Your task to perform on an android device: Open Google Maps and go to "Timeline" Image 0: 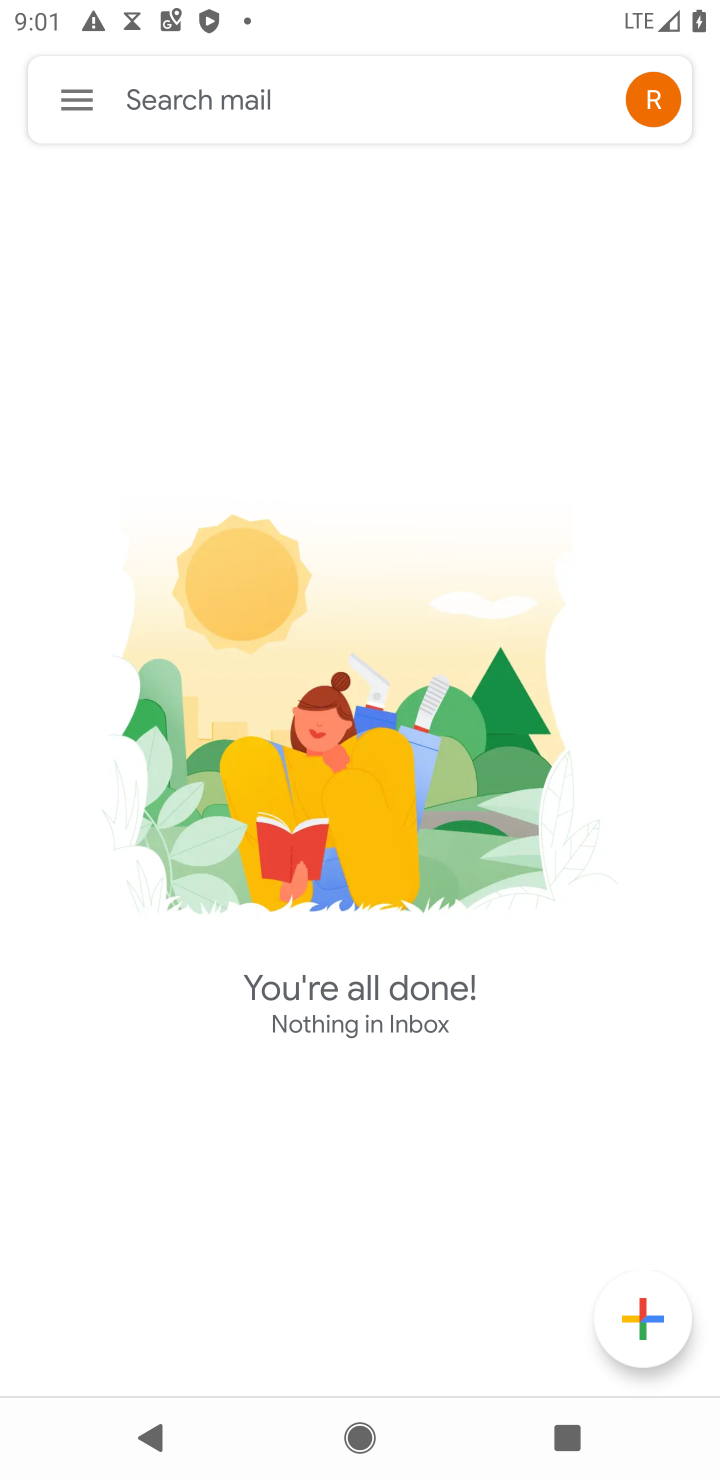
Step 0: press back button
Your task to perform on an android device: Open Google Maps and go to "Timeline" Image 1: 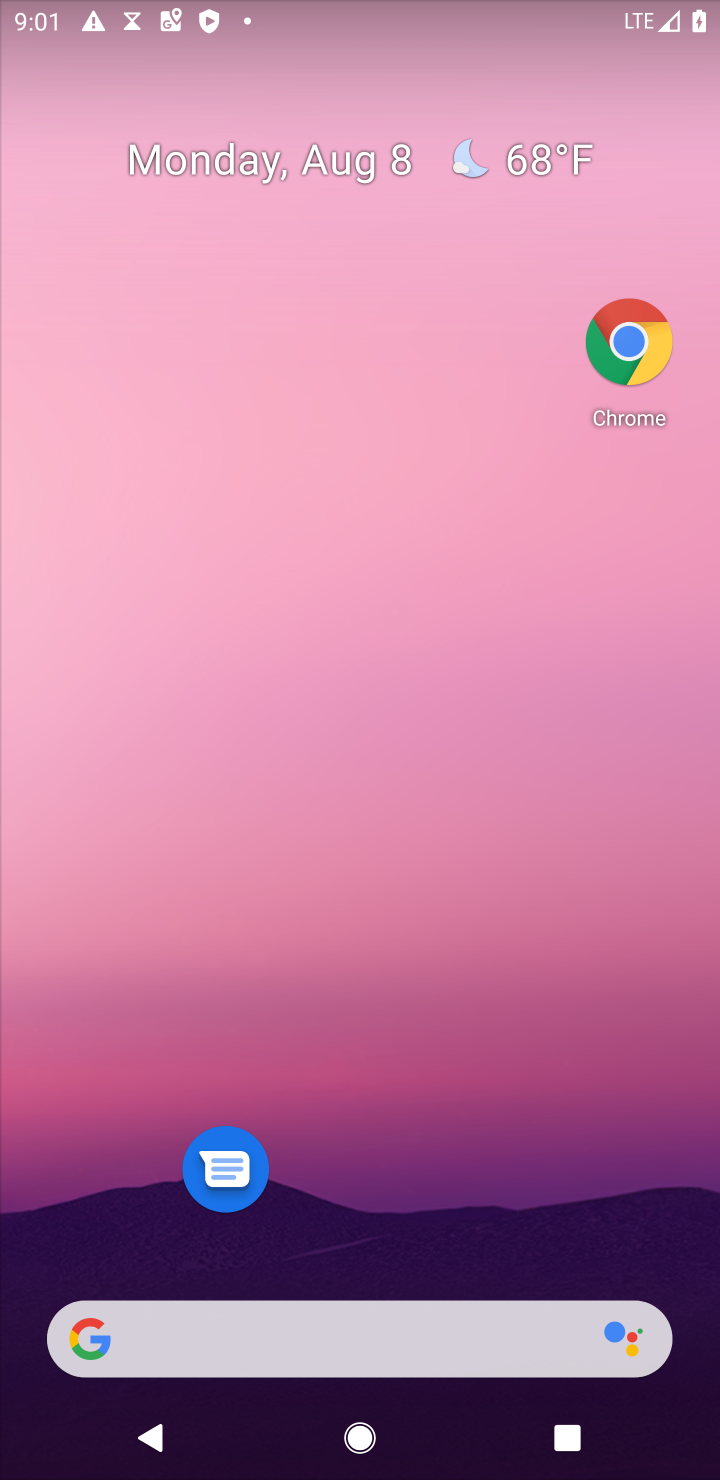
Step 1: drag from (375, 911) to (557, 3)
Your task to perform on an android device: Open Google Maps and go to "Timeline" Image 2: 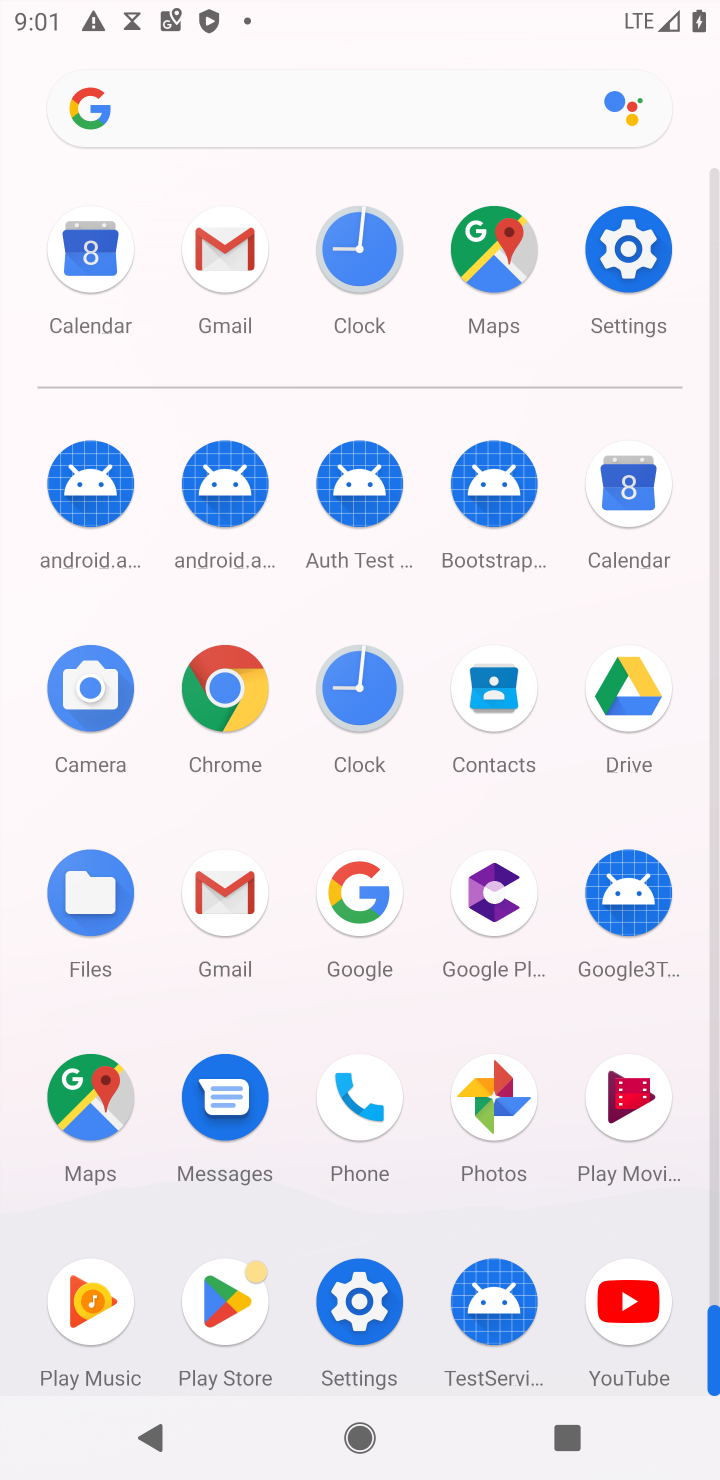
Step 2: click (501, 249)
Your task to perform on an android device: Open Google Maps and go to "Timeline" Image 3: 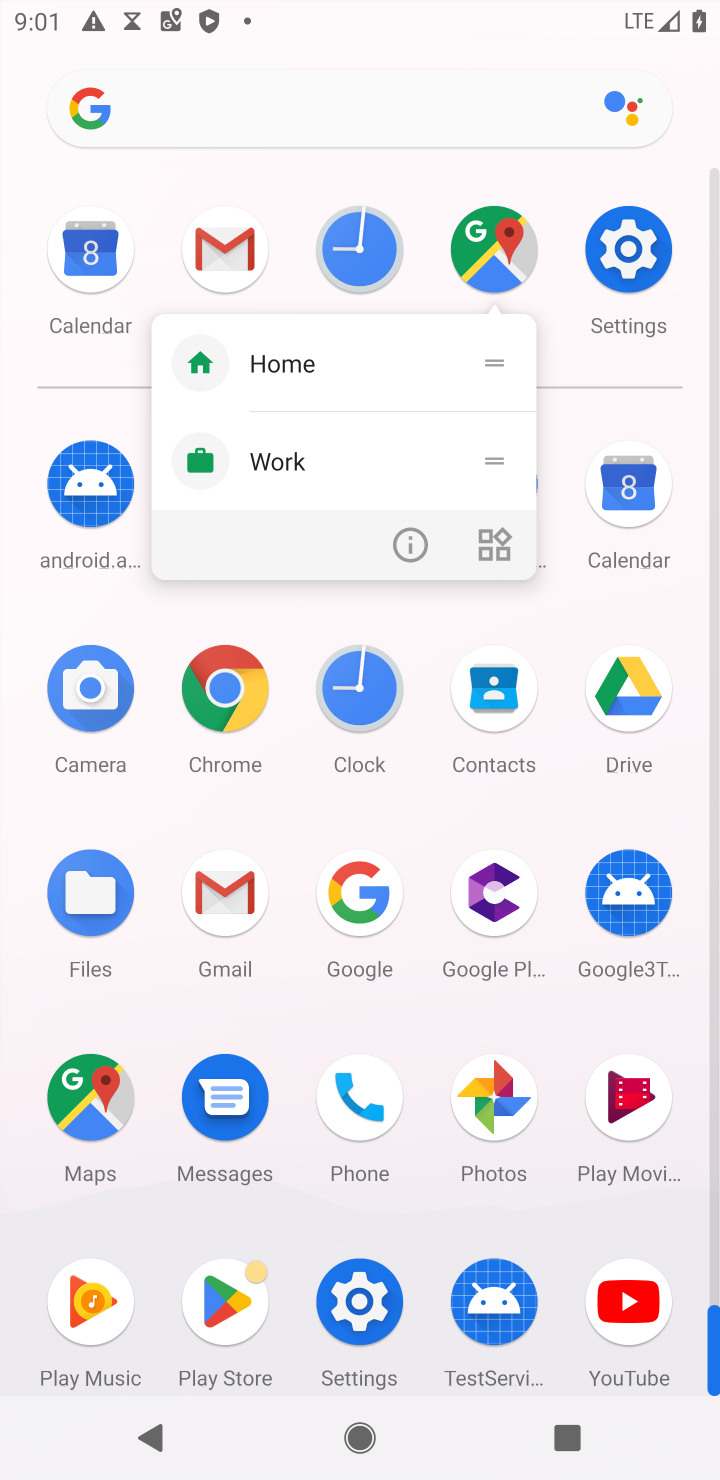
Step 3: click (501, 249)
Your task to perform on an android device: Open Google Maps and go to "Timeline" Image 4: 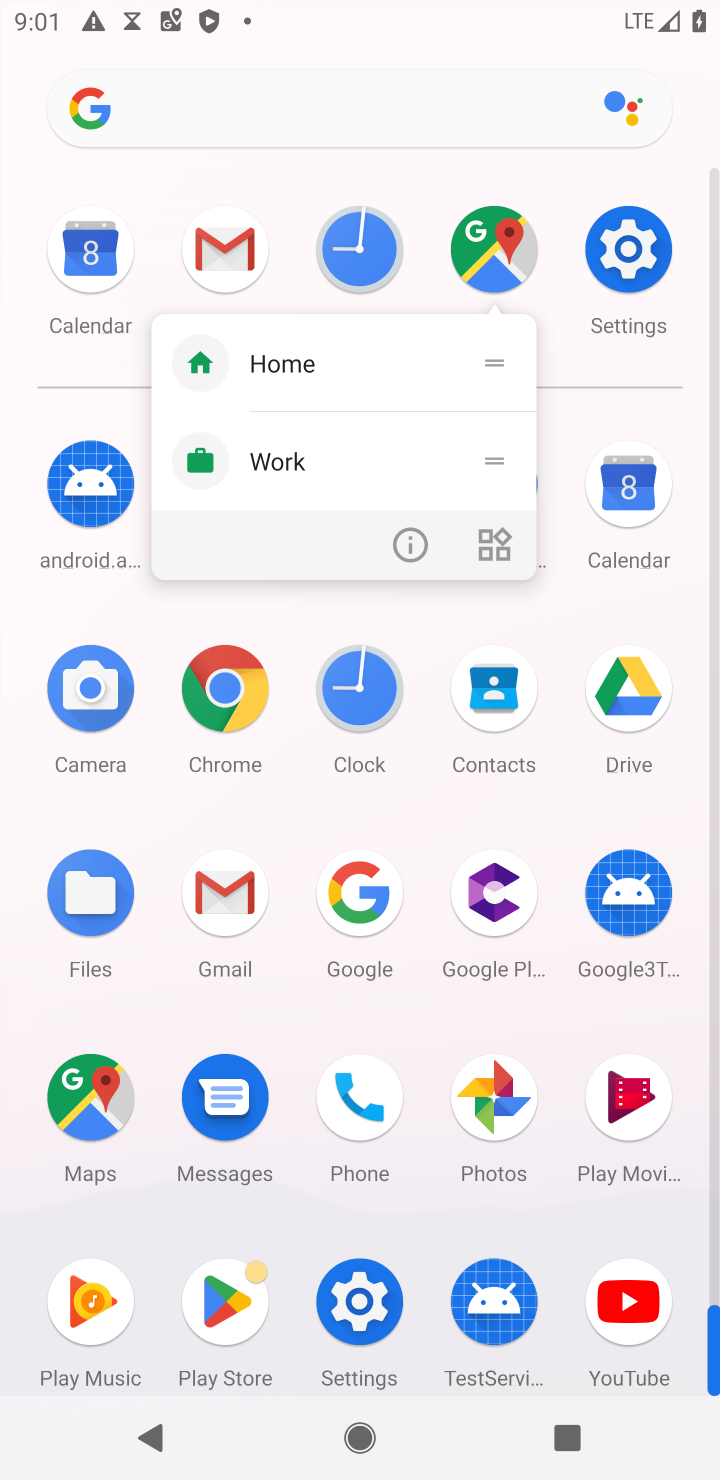
Step 4: click (502, 262)
Your task to perform on an android device: Open Google Maps and go to "Timeline" Image 5: 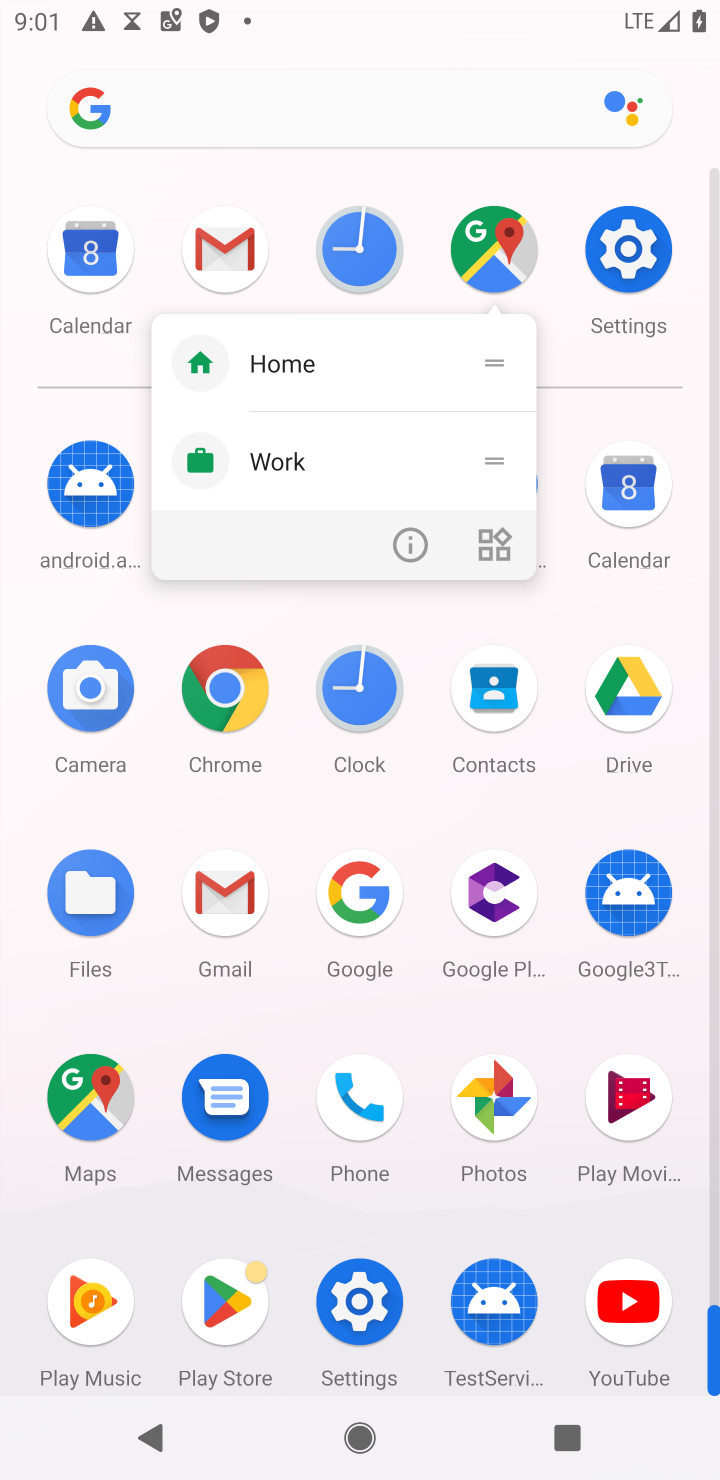
Step 5: click (499, 263)
Your task to perform on an android device: Open Google Maps and go to "Timeline" Image 6: 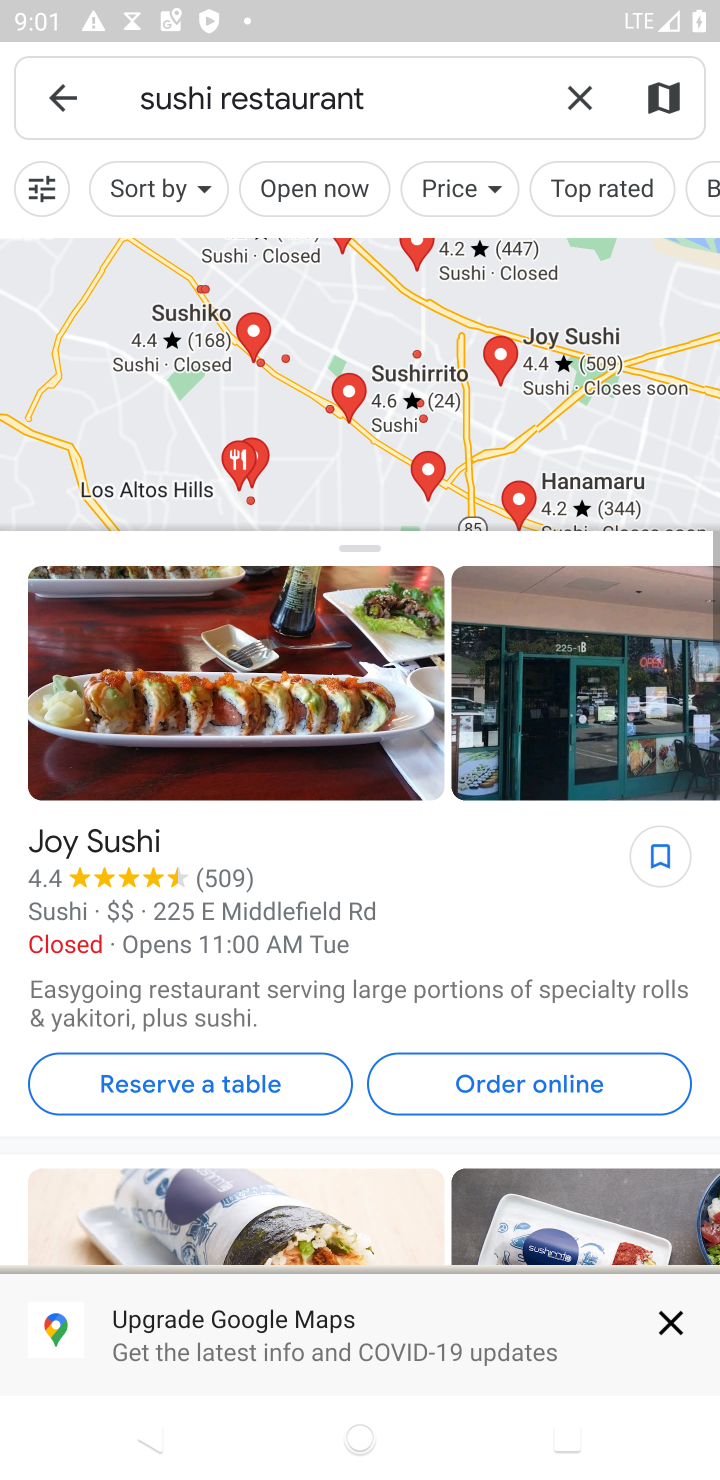
Step 6: click (52, 74)
Your task to perform on an android device: Open Google Maps and go to "Timeline" Image 7: 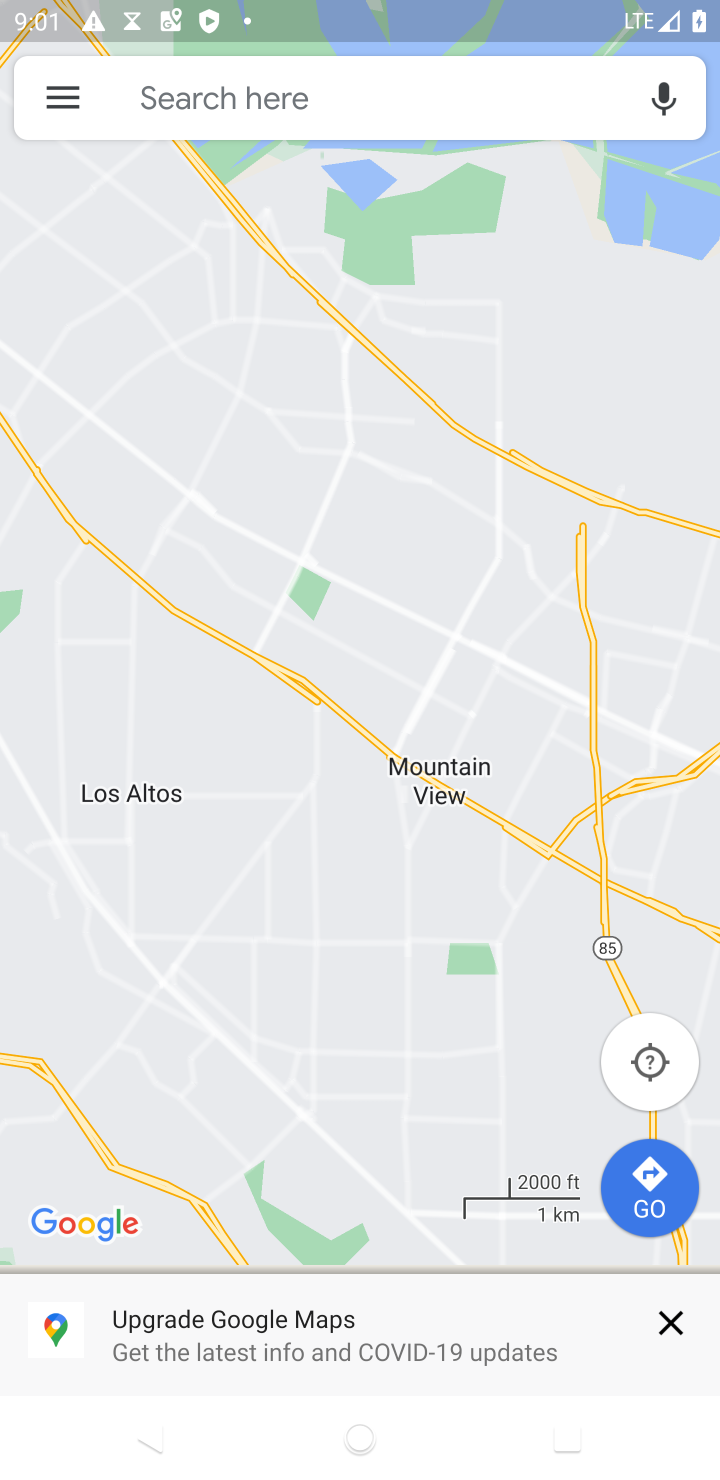
Step 7: click (73, 95)
Your task to perform on an android device: Open Google Maps and go to "Timeline" Image 8: 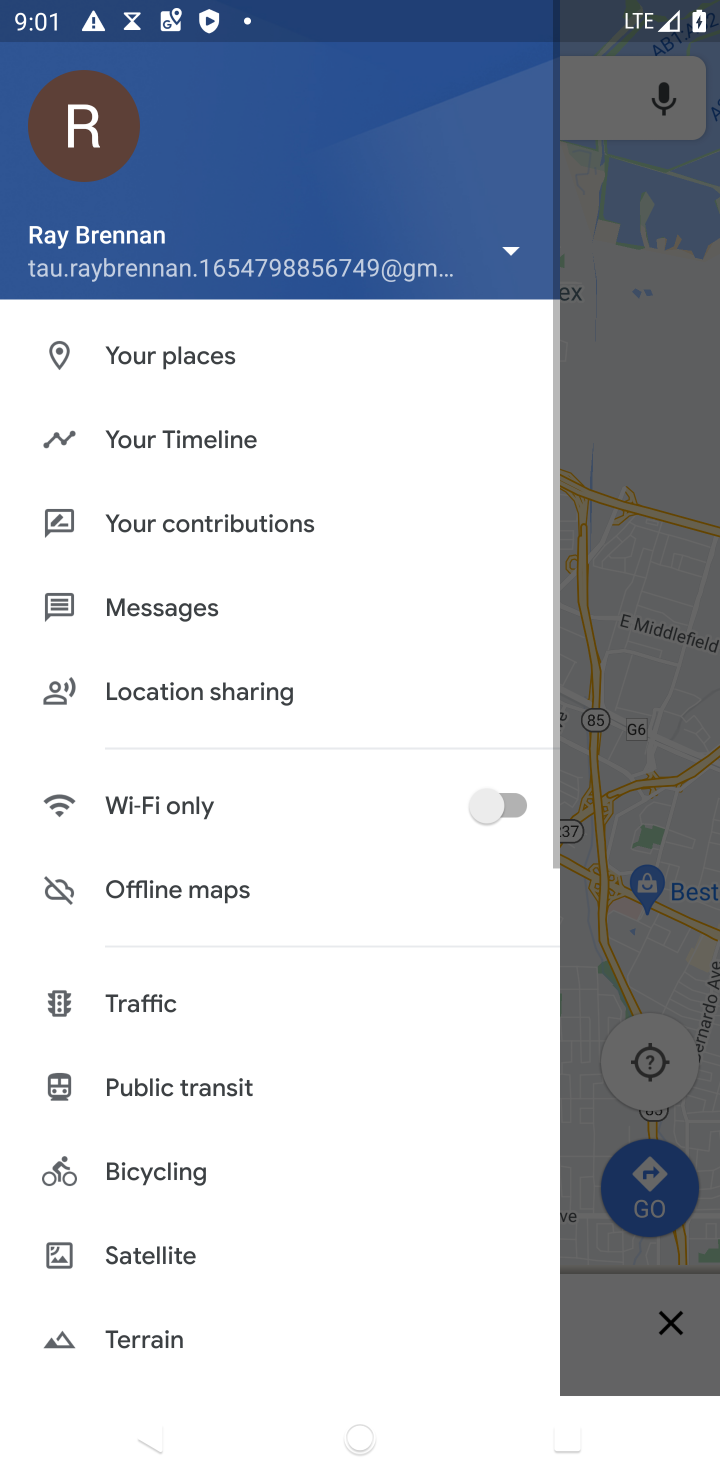
Step 8: click (235, 456)
Your task to perform on an android device: Open Google Maps and go to "Timeline" Image 9: 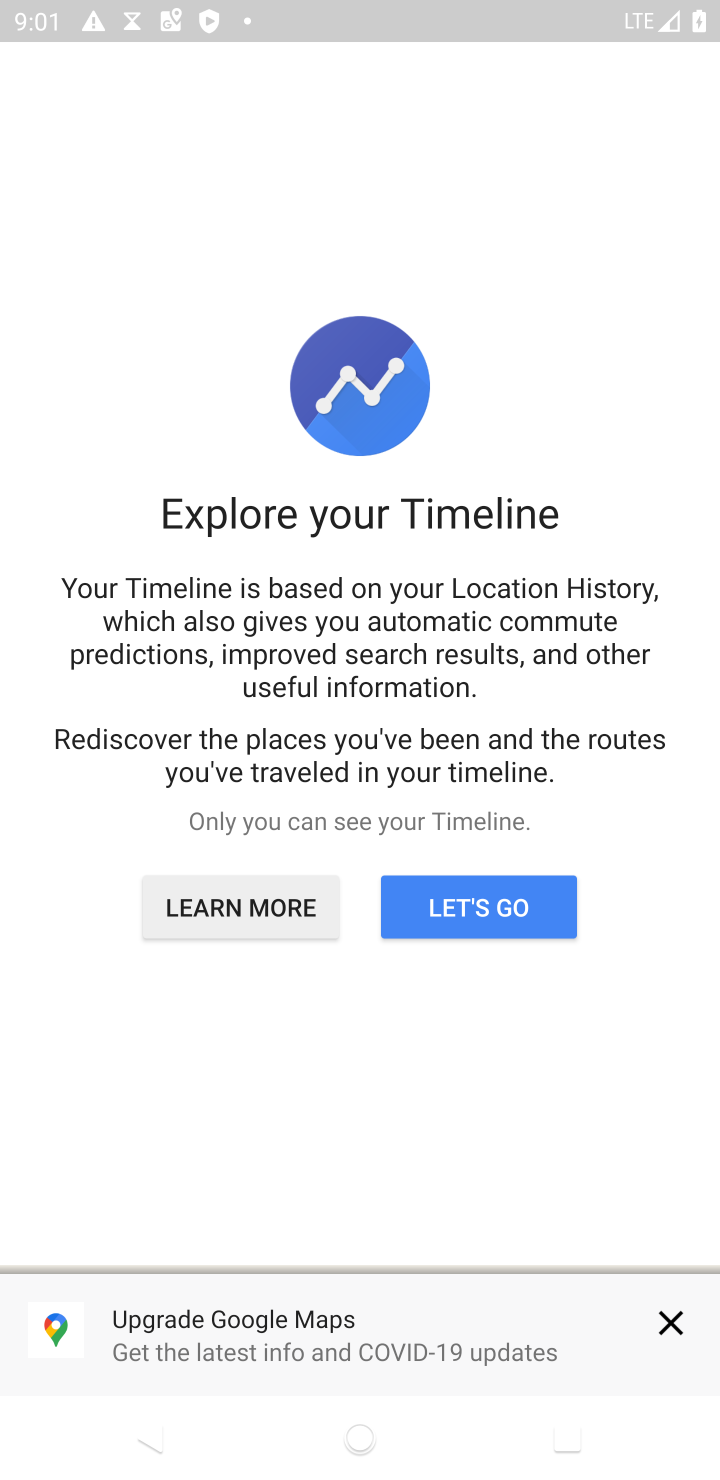
Step 9: click (664, 1343)
Your task to perform on an android device: Open Google Maps and go to "Timeline" Image 10: 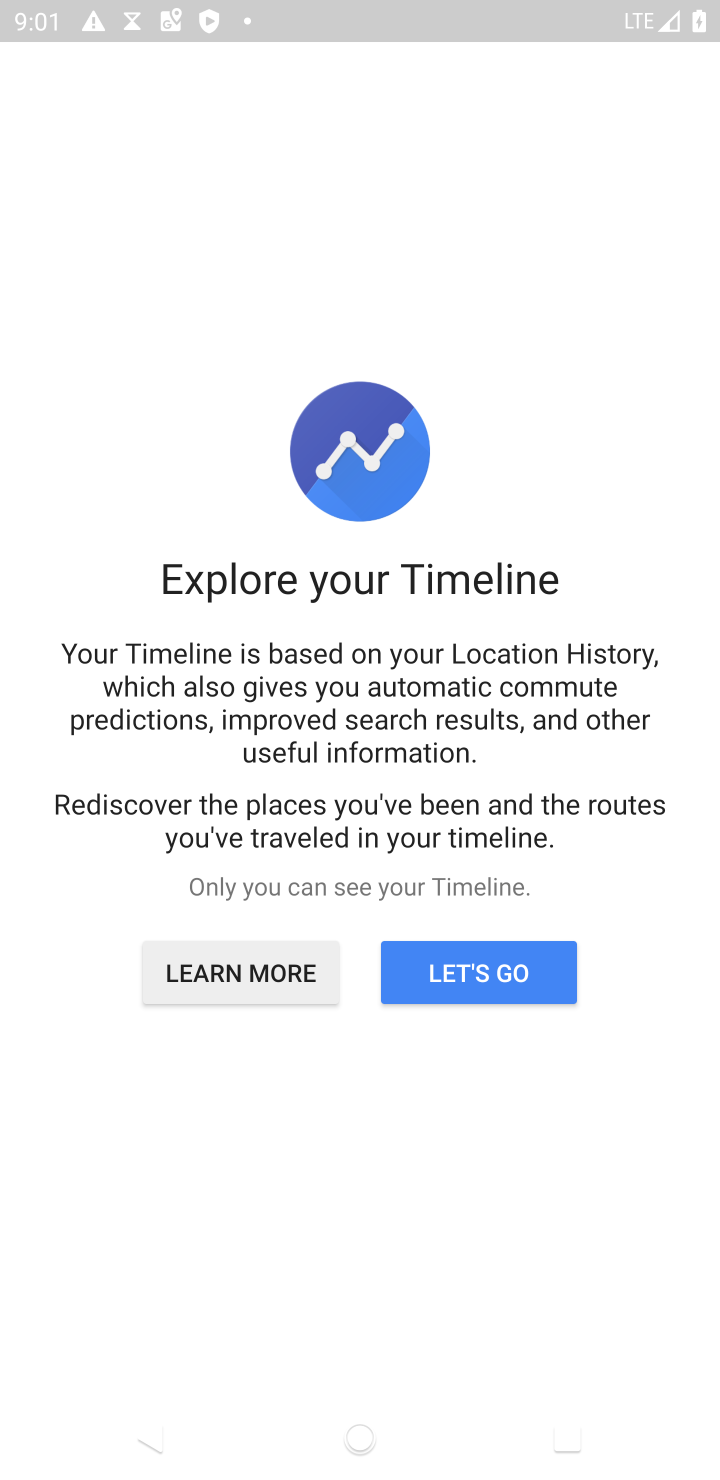
Step 10: click (489, 1010)
Your task to perform on an android device: Open Google Maps and go to "Timeline" Image 11: 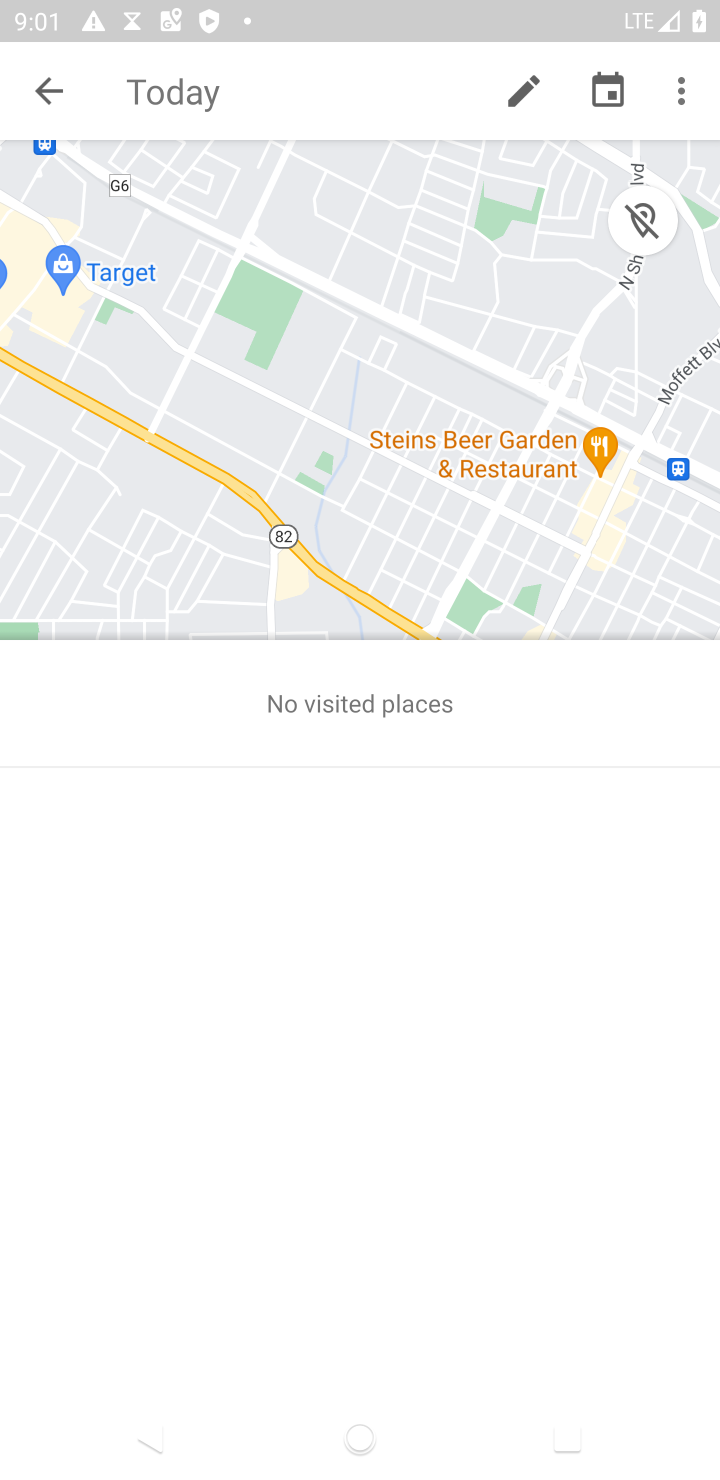
Step 11: task complete